Your task to perform on an android device: Open Reddit.com Image 0: 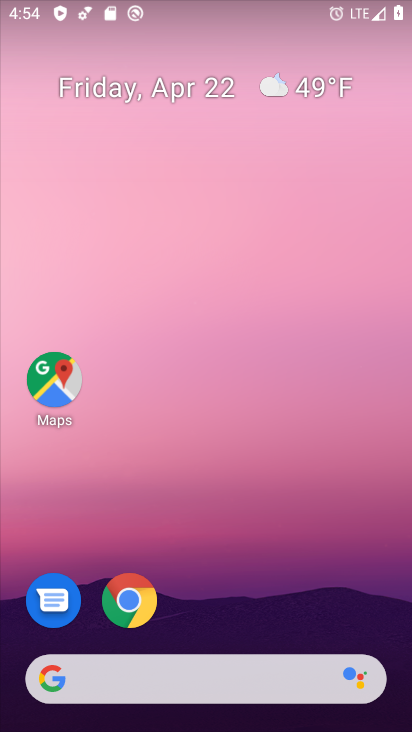
Step 0: click (132, 602)
Your task to perform on an android device: Open Reddit.com Image 1: 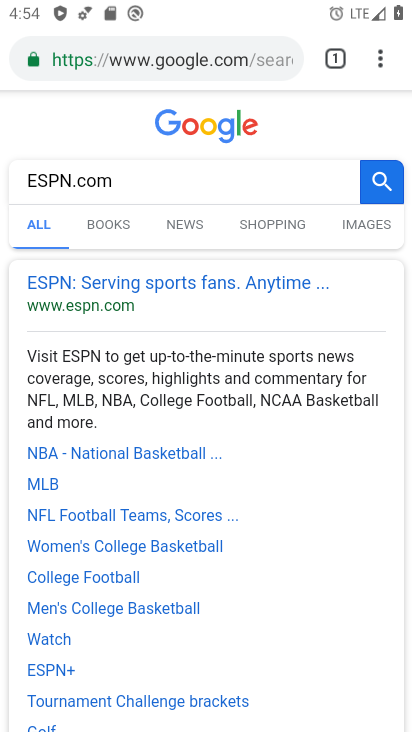
Step 1: click (284, 63)
Your task to perform on an android device: Open Reddit.com Image 2: 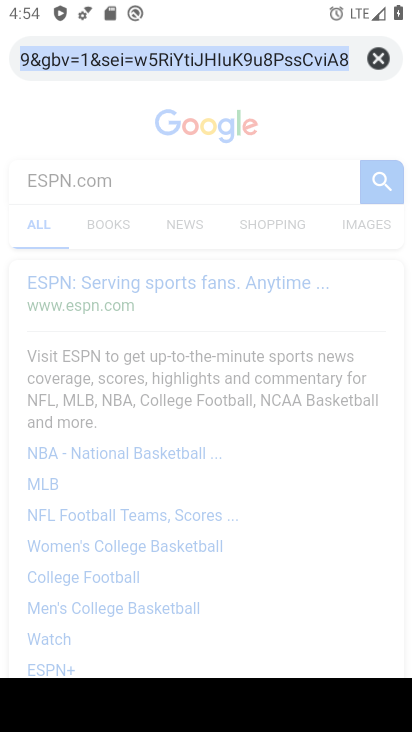
Step 2: click (376, 57)
Your task to perform on an android device: Open Reddit.com Image 3: 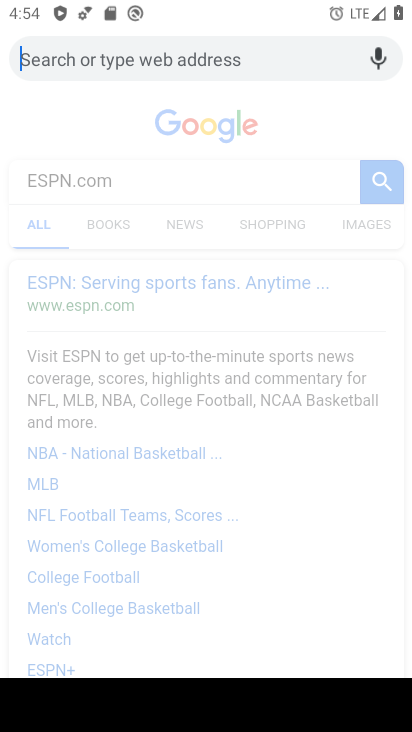
Step 3: type "Reddit.com"
Your task to perform on an android device: Open Reddit.com Image 4: 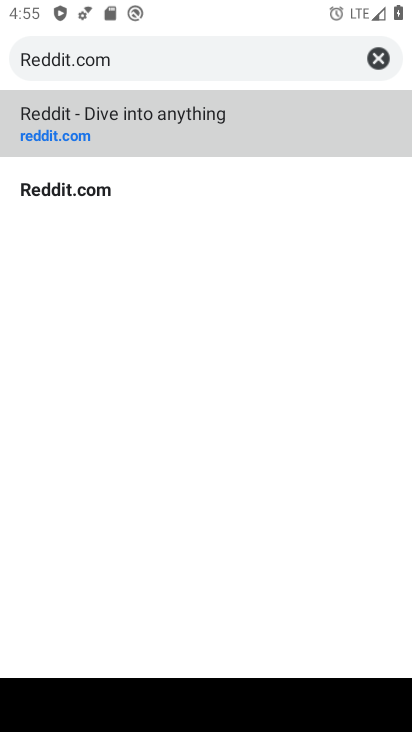
Step 4: click (68, 189)
Your task to perform on an android device: Open Reddit.com Image 5: 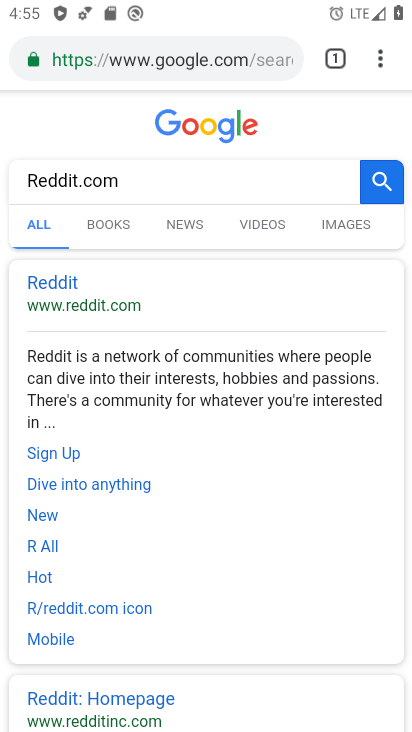
Step 5: task complete